Your task to perform on an android device: change alarm snooze length Image 0: 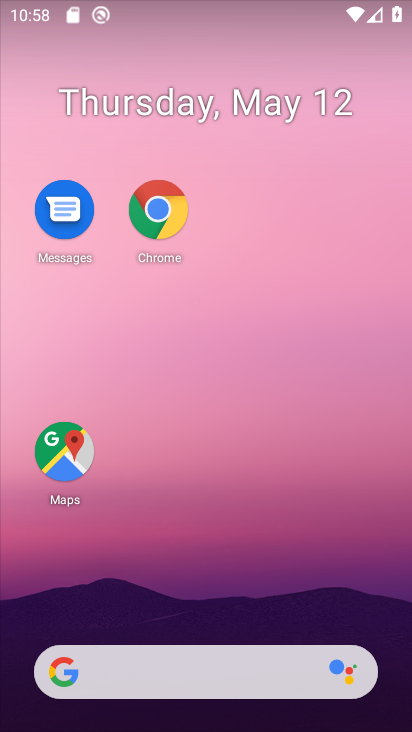
Step 0: drag from (225, 618) to (304, 135)
Your task to perform on an android device: change alarm snooze length Image 1: 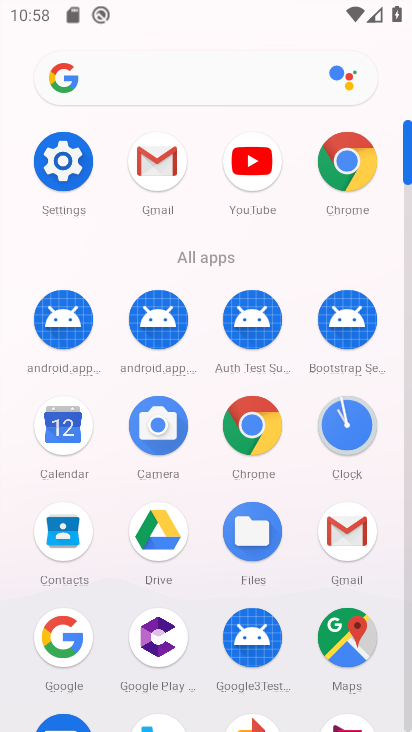
Step 1: click (358, 432)
Your task to perform on an android device: change alarm snooze length Image 2: 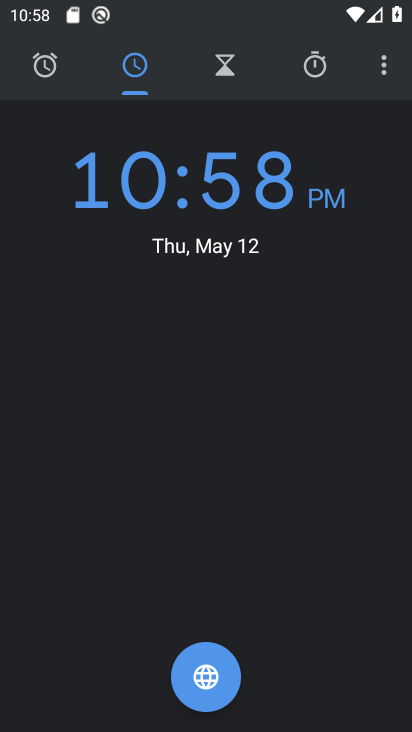
Step 2: click (385, 63)
Your task to perform on an android device: change alarm snooze length Image 3: 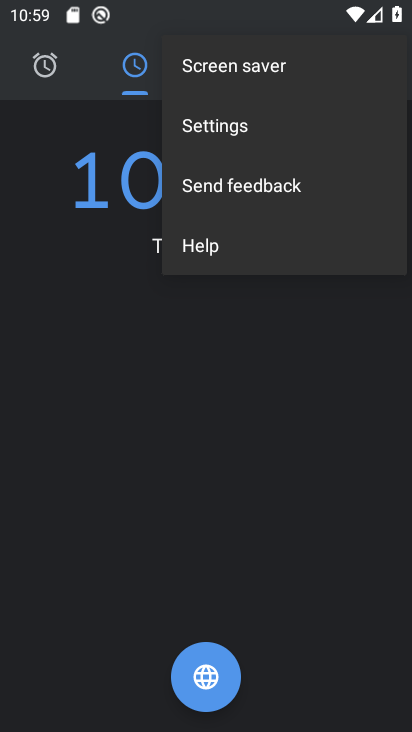
Step 3: click (250, 136)
Your task to perform on an android device: change alarm snooze length Image 4: 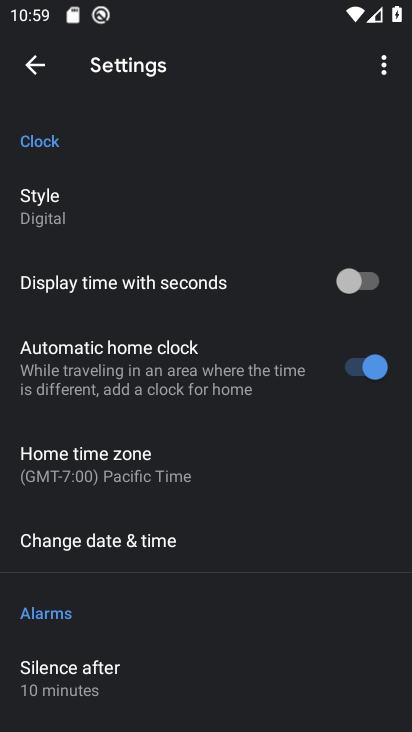
Step 4: drag from (97, 684) to (110, 318)
Your task to perform on an android device: change alarm snooze length Image 5: 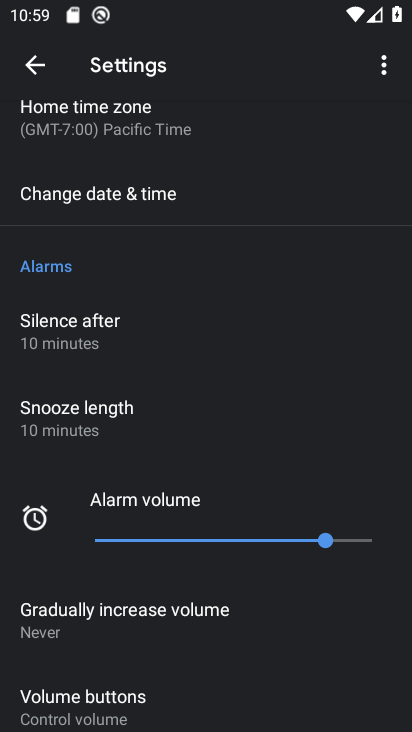
Step 5: click (111, 431)
Your task to perform on an android device: change alarm snooze length Image 6: 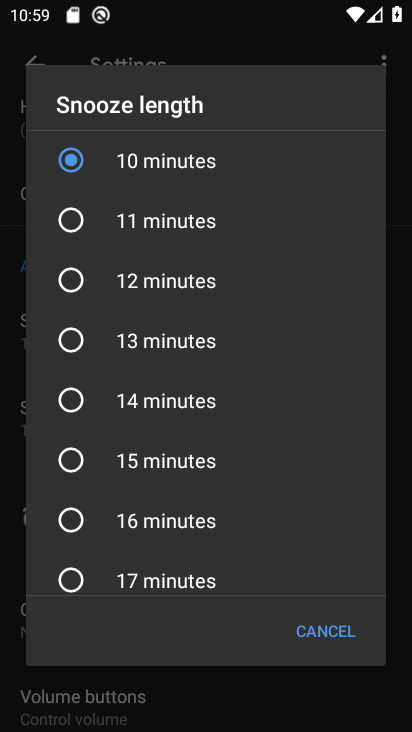
Step 6: click (88, 230)
Your task to perform on an android device: change alarm snooze length Image 7: 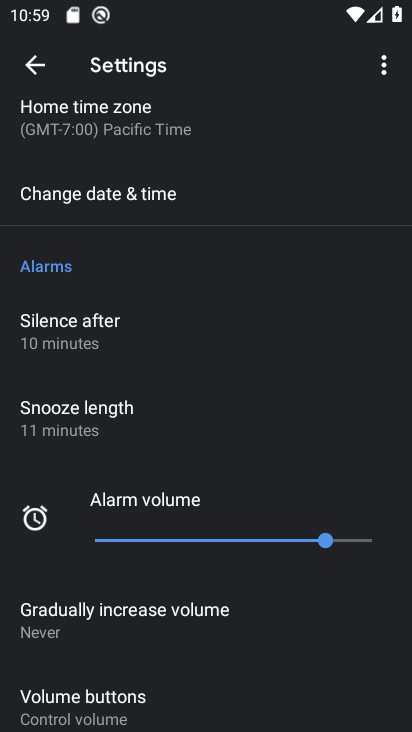
Step 7: task complete